Your task to perform on an android device: Search for pizza restaurants on Maps Image 0: 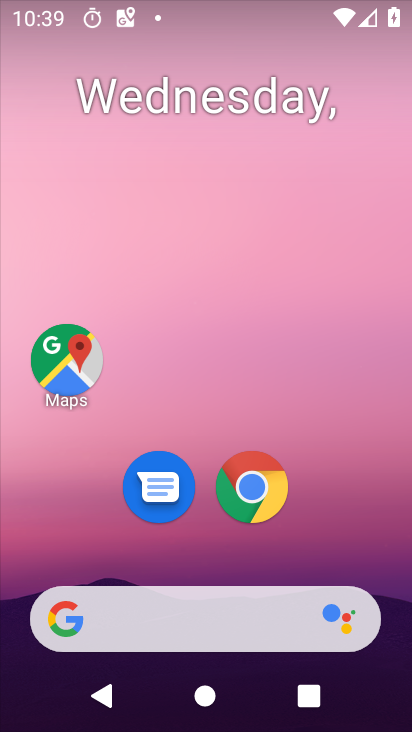
Step 0: drag from (303, 566) to (260, 20)
Your task to perform on an android device: Search for pizza restaurants on Maps Image 1: 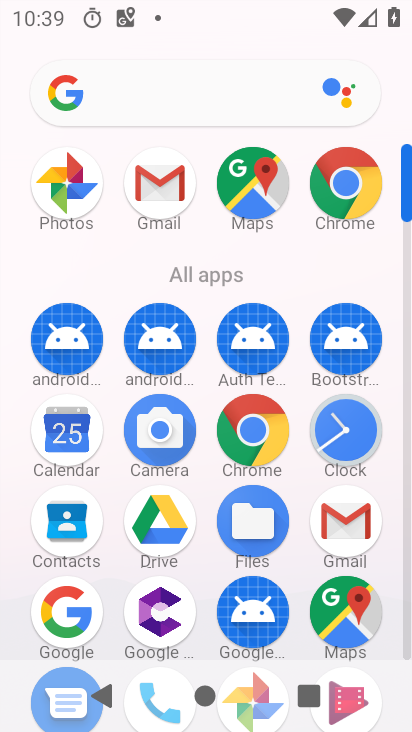
Step 1: click (329, 632)
Your task to perform on an android device: Search for pizza restaurants on Maps Image 2: 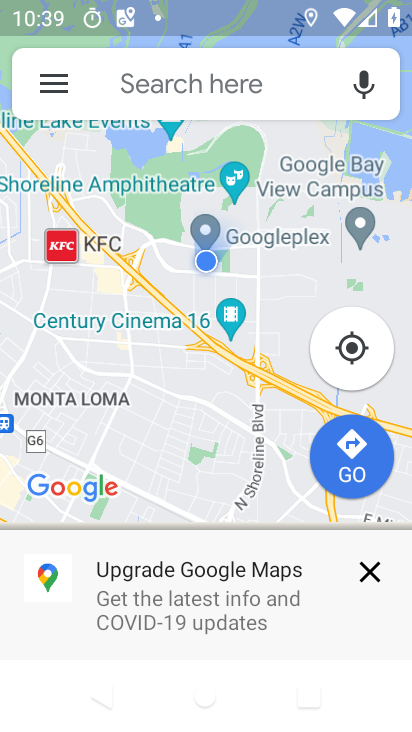
Step 2: click (223, 88)
Your task to perform on an android device: Search for pizza restaurants on Maps Image 3: 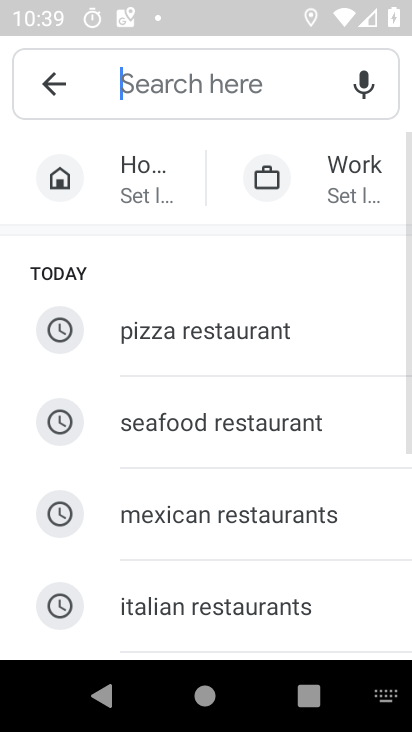
Step 3: click (257, 351)
Your task to perform on an android device: Search for pizza restaurants on Maps Image 4: 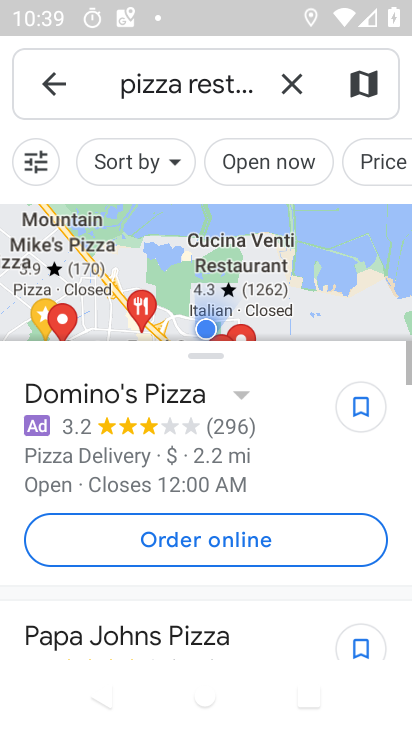
Step 4: task complete